Your task to perform on an android device: Go to Wikipedia Image 0: 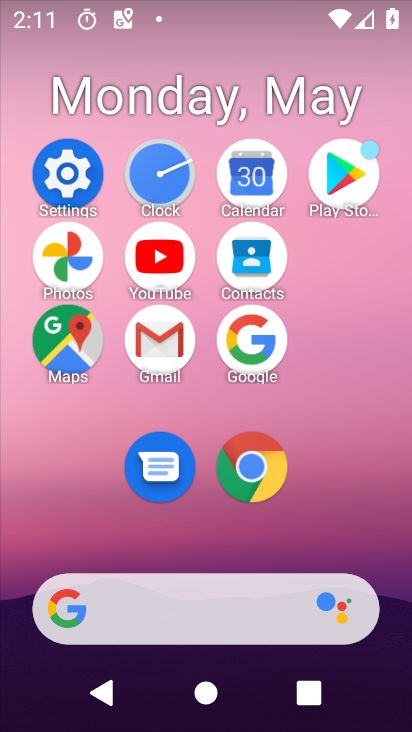
Step 0: click (261, 462)
Your task to perform on an android device: Go to Wikipedia Image 1: 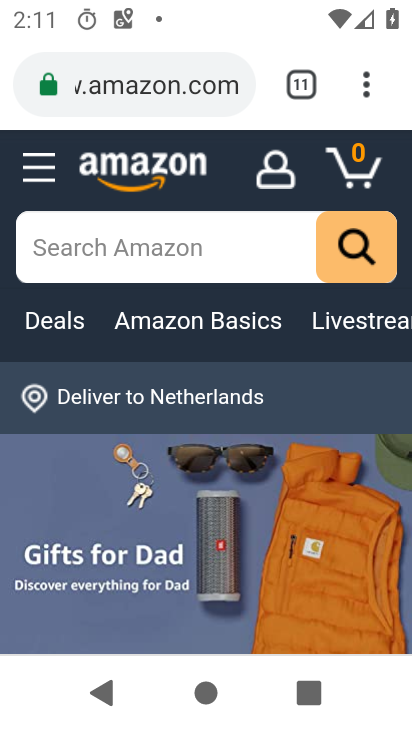
Step 1: click (291, 90)
Your task to perform on an android device: Go to Wikipedia Image 2: 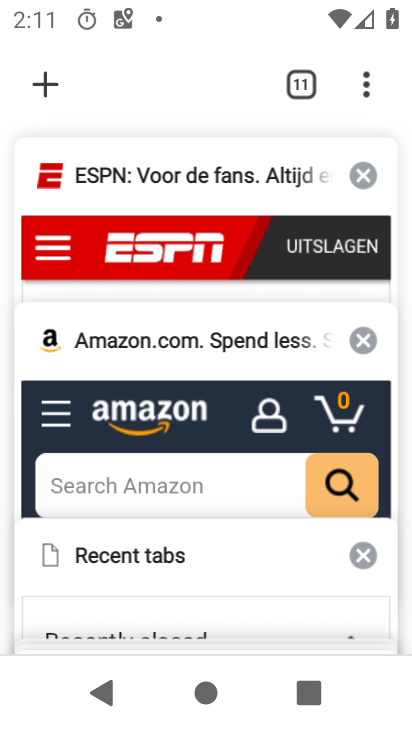
Step 2: click (54, 64)
Your task to perform on an android device: Go to Wikipedia Image 3: 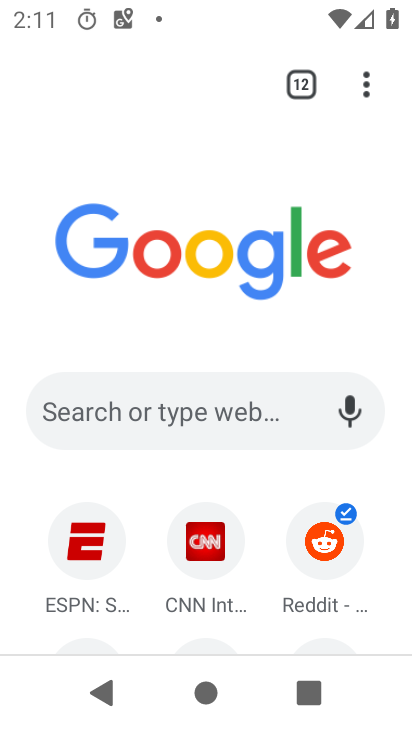
Step 3: drag from (263, 481) to (247, 186)
Your task to perform on an android device: Go to Wikipedia Image 4: 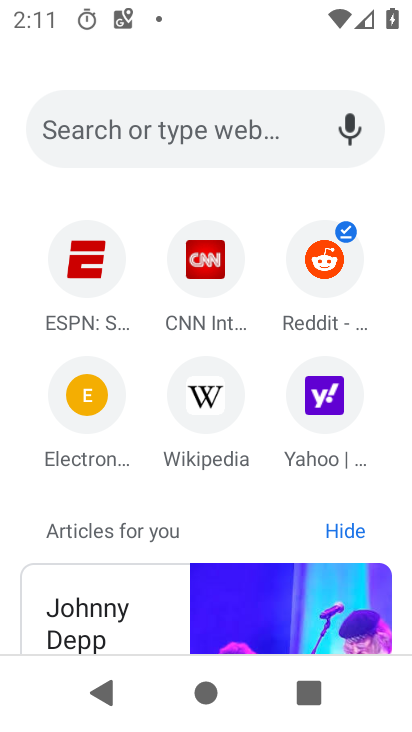
Step 4: click (224, 395)
Your task to perform on an android device: Go to Wikipedia Image 5: 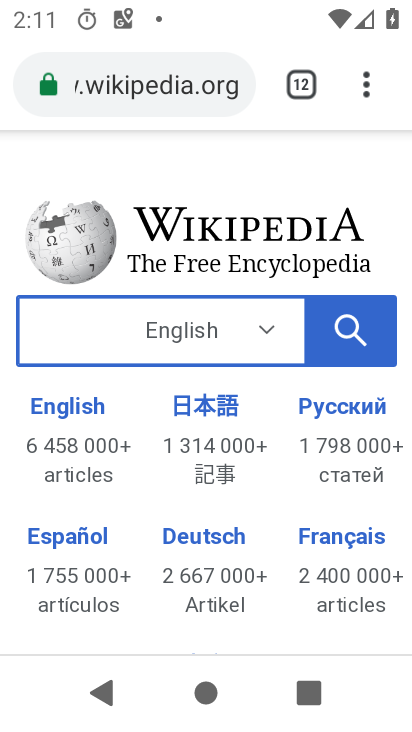
Step 5: task complete